Your task to perform on an android device: turn on airplane mode Image 0: 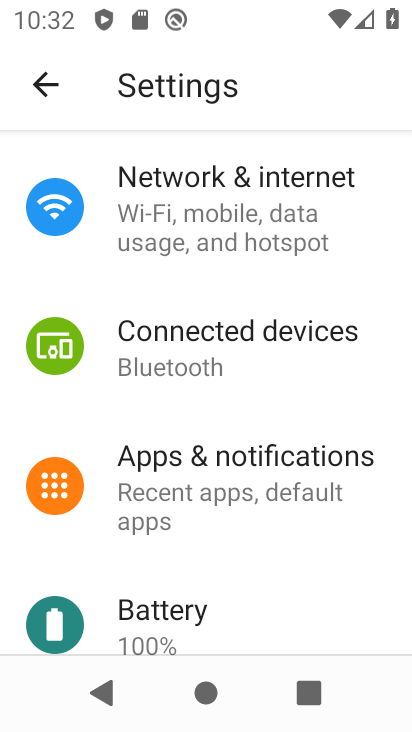
Step 0: press home button
Your task to perform on an android device: turn on airplane mode Image 1: 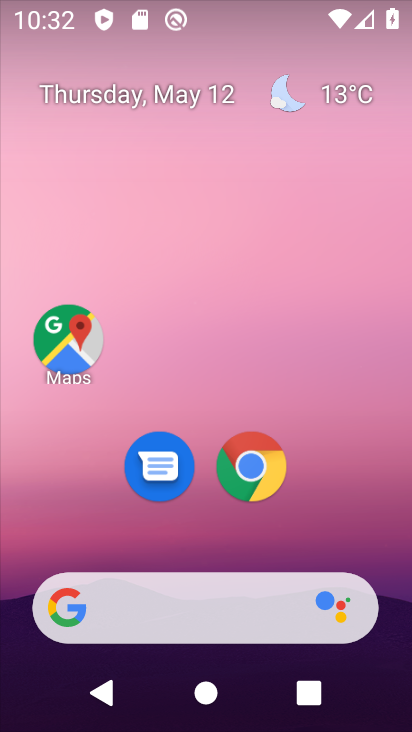
Step 1: drag from (363, 436) to (338, 180)
Your task to perform on an android device: turn on airplane mode Image 2: 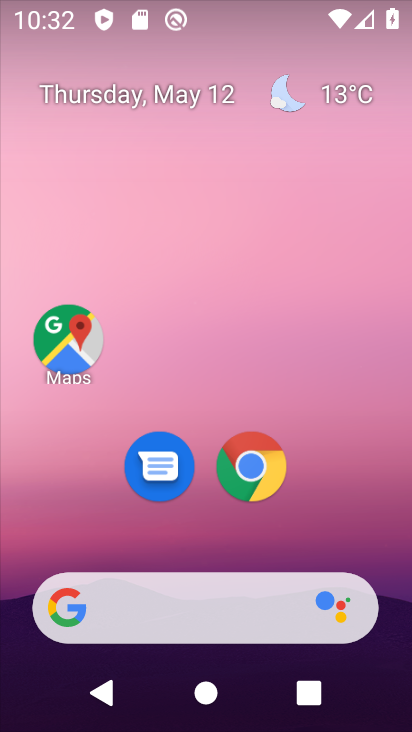
Step 2: drag from (358, 510) to (343, 172)
Your task to perform on an android device: turn on airplane mode Image 3: 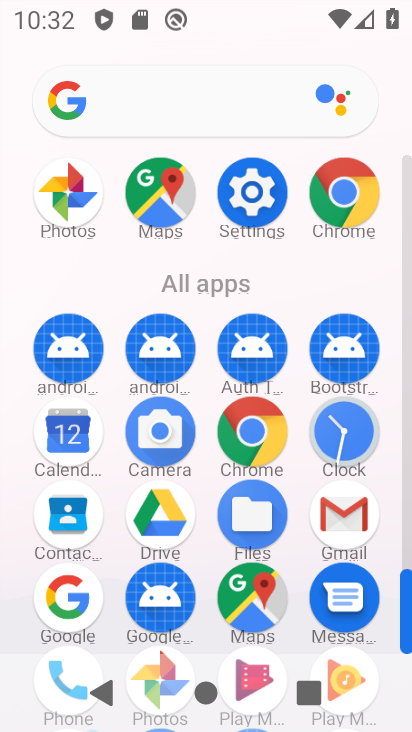
Step 3: drag from (303, 554) to (322, 281)
Your task to perform on an android device: turn on airplane mode Image 4: 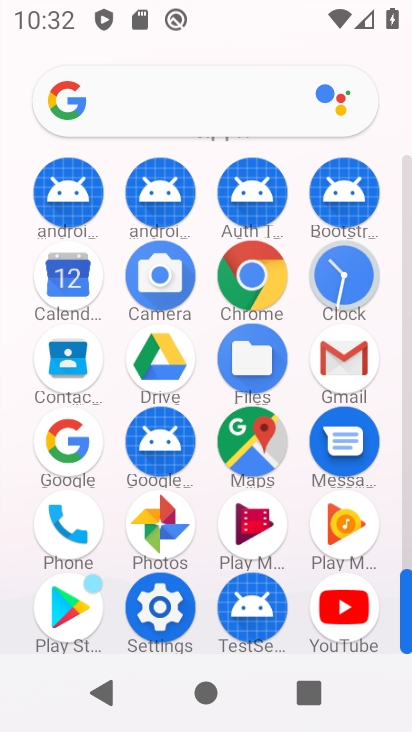
Step 4: click (145, 630)
Your task to perform on an android device: turn on airplane mode Image 5: 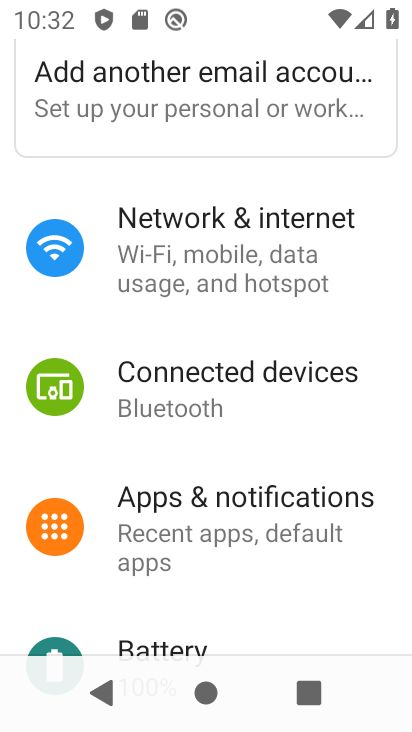
Step 5: drag from (312, 292) to (301, 453)
Your task to perform on an android device: turn on airplane mode Image 6: 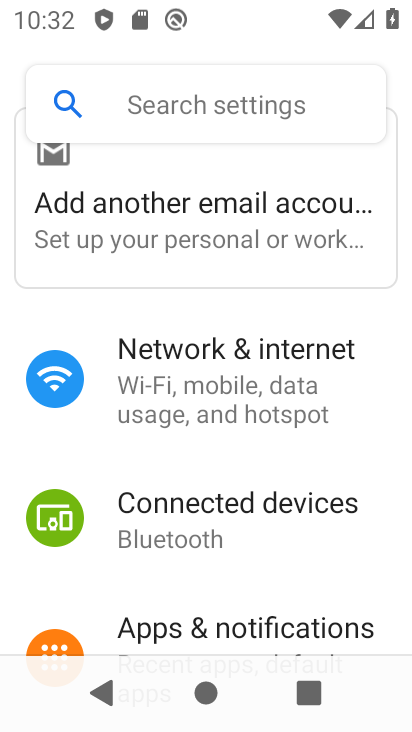
Step 6: click (347, 390)
Your task to perform on an android device: turn on airplane mode Image 7: 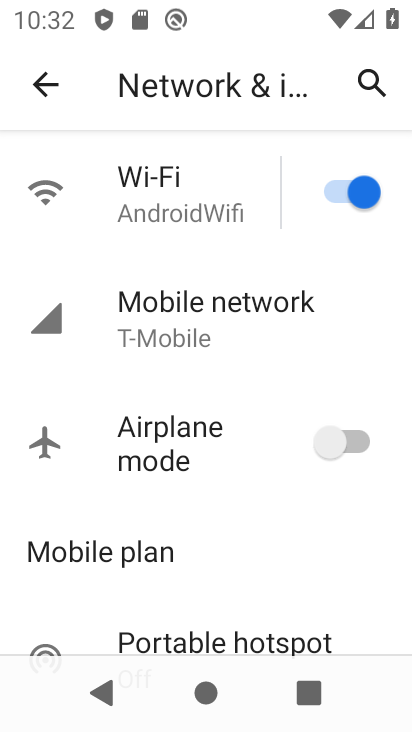
Step 7: click (358, 438)
Your task to perform on an android device: turn on airplane mode Image 8: 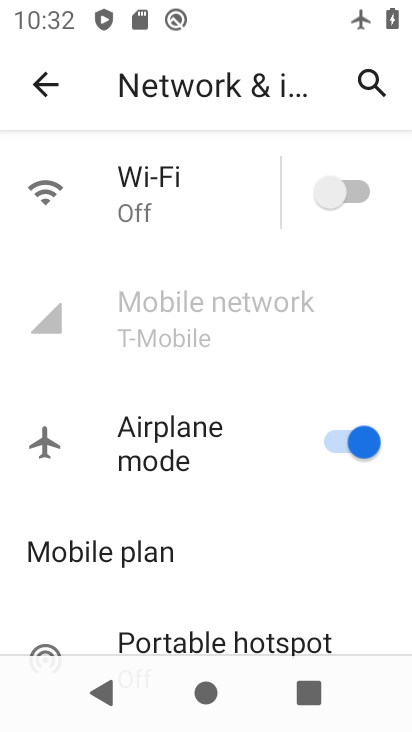
Step 8: task complete